Your task to perform on an android device: Open the phone app and click the voicemail tab. Image 0: 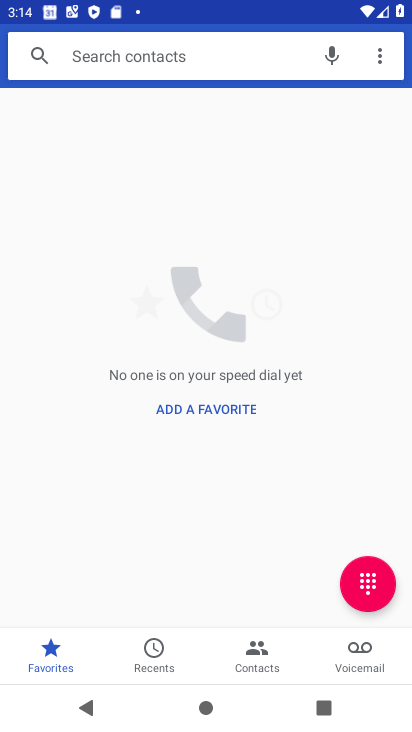
Step 0: press home button
Your task to perform on an android device: Open the phone app and click the voicemail tab. Image 1: 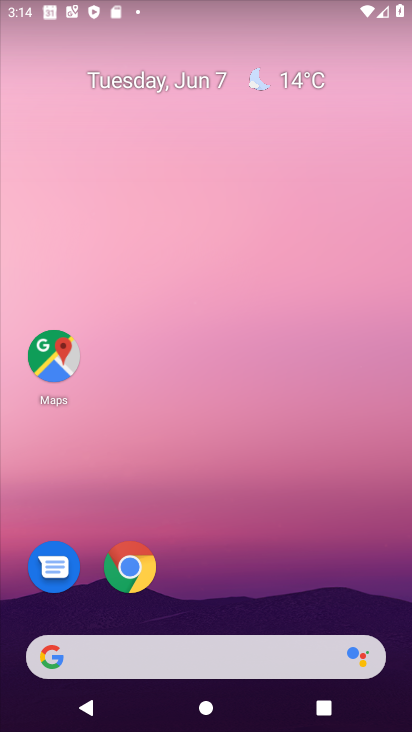
Step 1: drag from (190, 610) to (196, 174)
Your task to perform on an android device: Open the phone app and click the voicemail tab. Image 2: 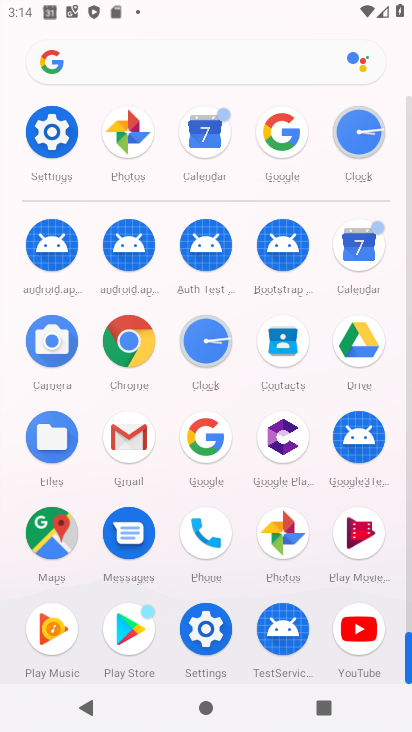
Step 2: click (194, 543)
Your task to perform on an android device: Open the phone app and click the voicemail tab. Image 3: 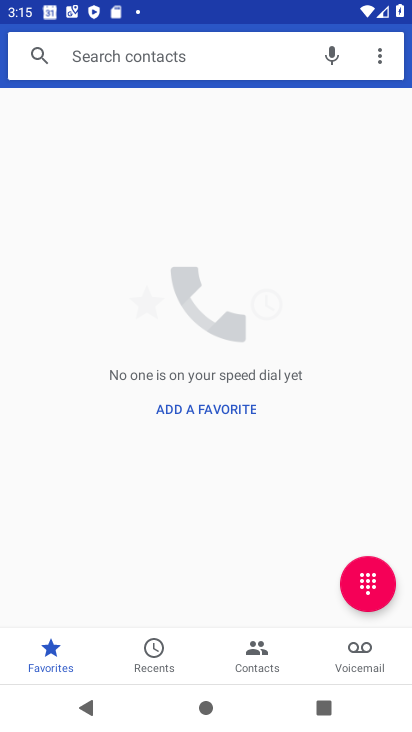
Step 3: click (352, 631)
Your task to perform on an android device: Open the phone app and click the voicemail tab. Image 4: 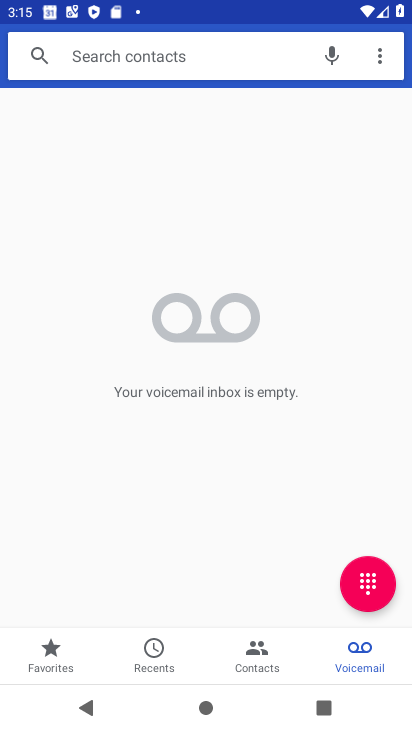
Step 4: task complete